Your task to perform on an android device: toggle sleep mode Image 0: 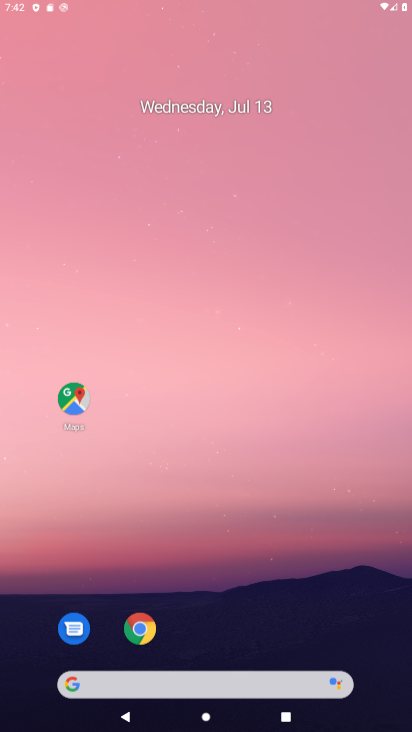
Step 0: click (323, 98)
Your task to perform on an android device: toggle sleep mode Image 1: 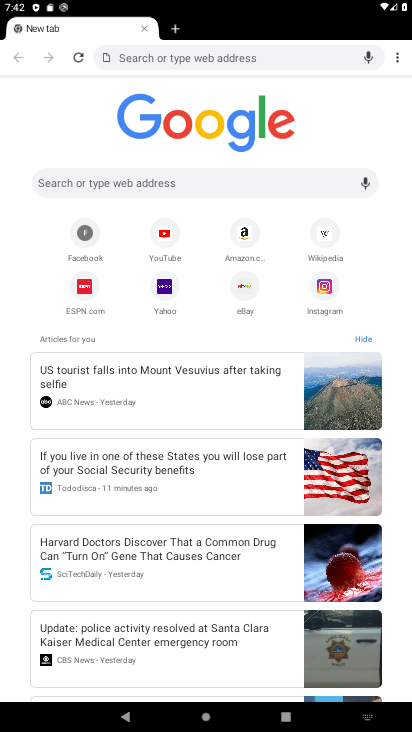
Step 1: press home button
Your task to perform on an android device: toggle sleep mode Image 2: 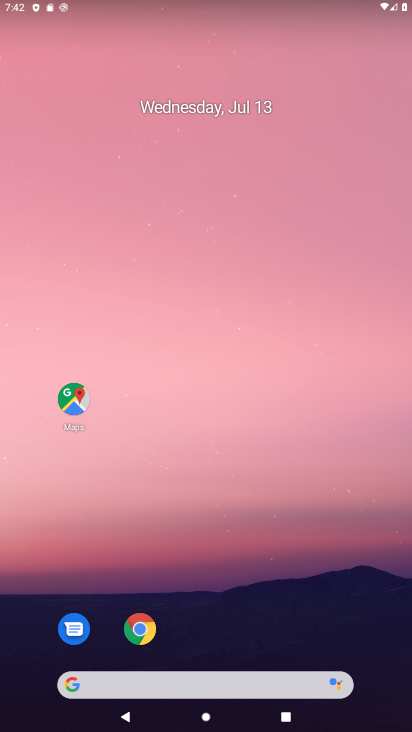
Step 2: drag from (386, 607) to (299, 10)
Your task to perform on an android device: toggle sleep mode Image 3: 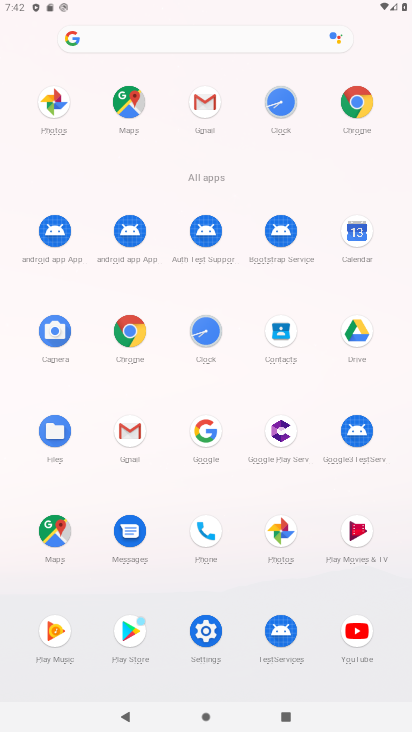
Step 3: drag from (206, 628) to (169, 473)
Your task to perform on an android device: toggle sleep mode Image 4: 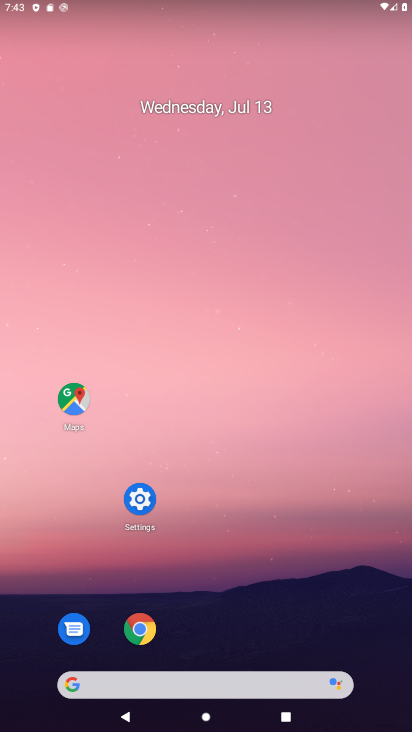
Step 4: click (144, 497)
Your task to perform on an android device: toggle sleep mode Image 5: 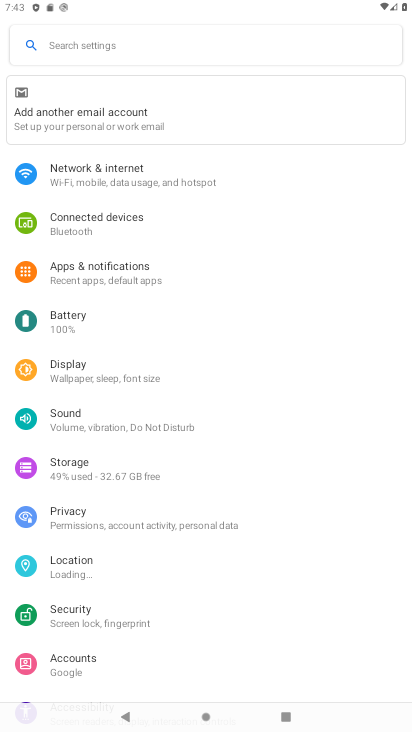
Step 5: click (72, 368)
Your task to perform on an android device: toggle sleep mode Image 6: 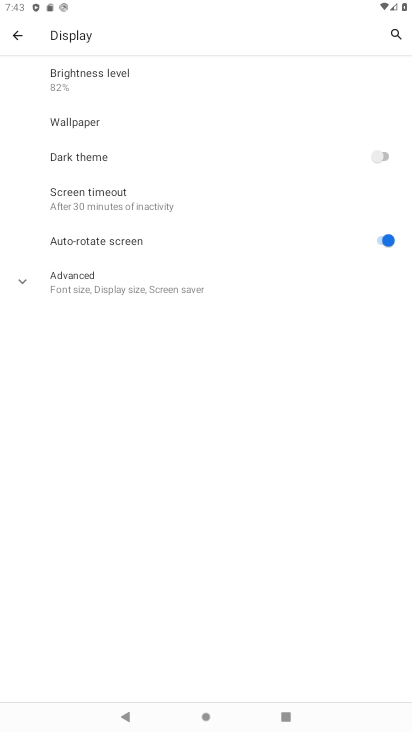
Step 6: click (80, 196)
Your task to perform on an android device: toggle sleep mode Image 7: 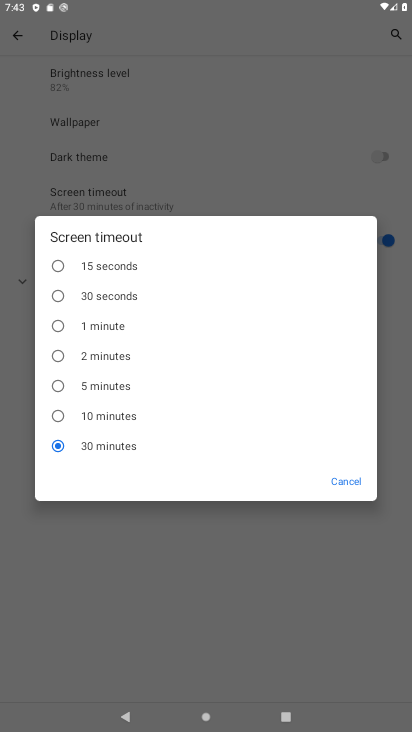
Step 7: click (58, 357)
Your task to perform on an android device: toggle sleep mode Image 8: 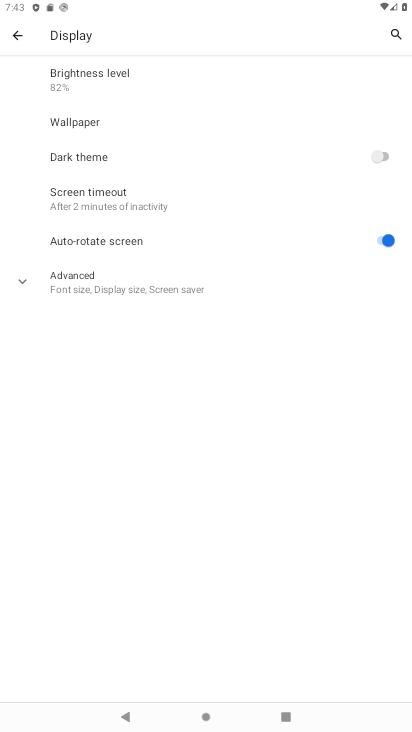
Step 8: task complete